Your task to perform on an android device: turn on wifi Image 0: 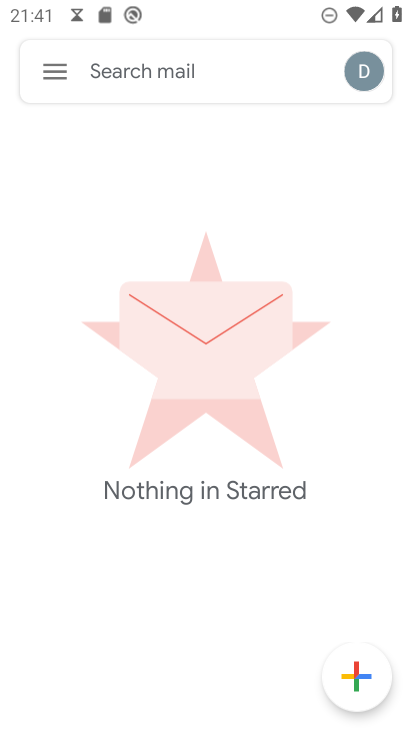
Step 0: press home button
Your task to perform on an android device: turn on wifi Image 1: 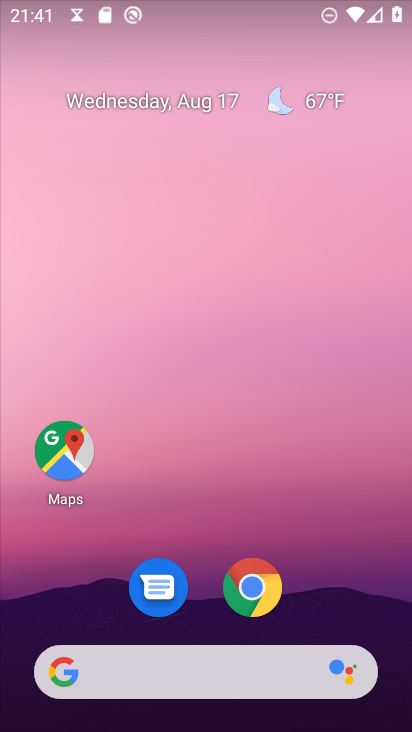
Step 1: drag from (16, 700) to (291, 191)
Your task to perform on an android device: turn on wifi Image 2: 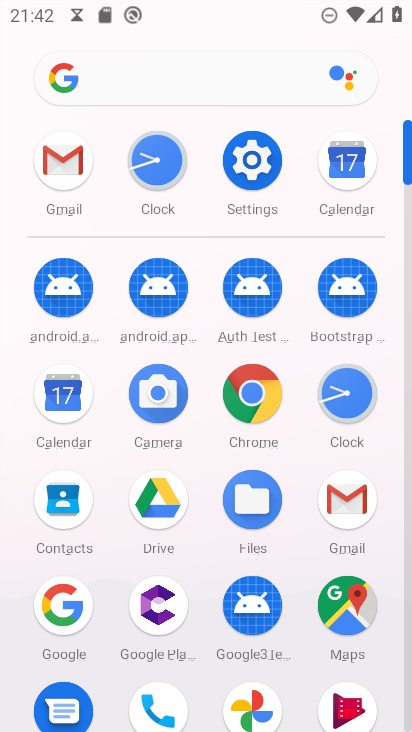
Step 2: click (263, 177)
Your task to perform on an android device: turn on wifi Image 3: 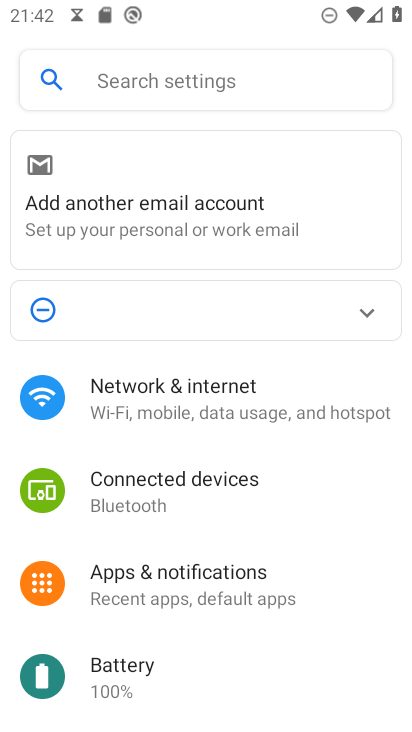
Step 3: click (156, 401)
Your task to perform on an android device: turn on wifi Image 4: 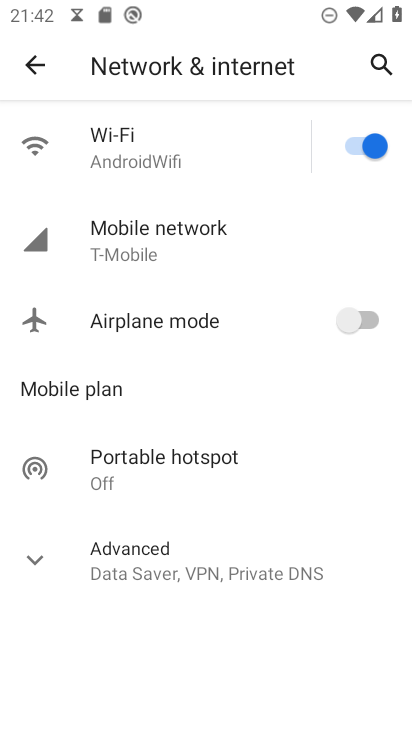
Step 4: task complete